Your task to perform on an android device: Clear the cart on walmart. Image 0: 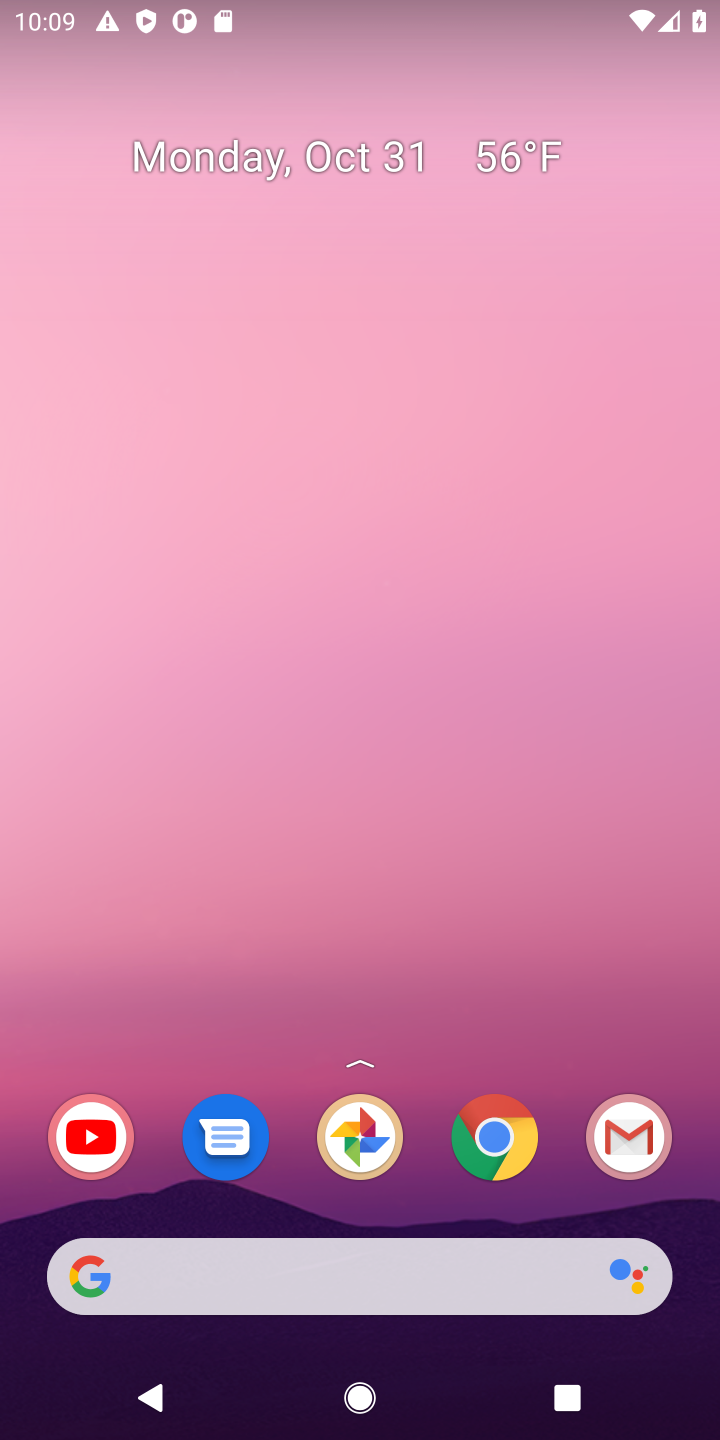
Step 0: click (493, 1143)
Your task to perform on an android device: Clear the cart on walmart. Image 1: 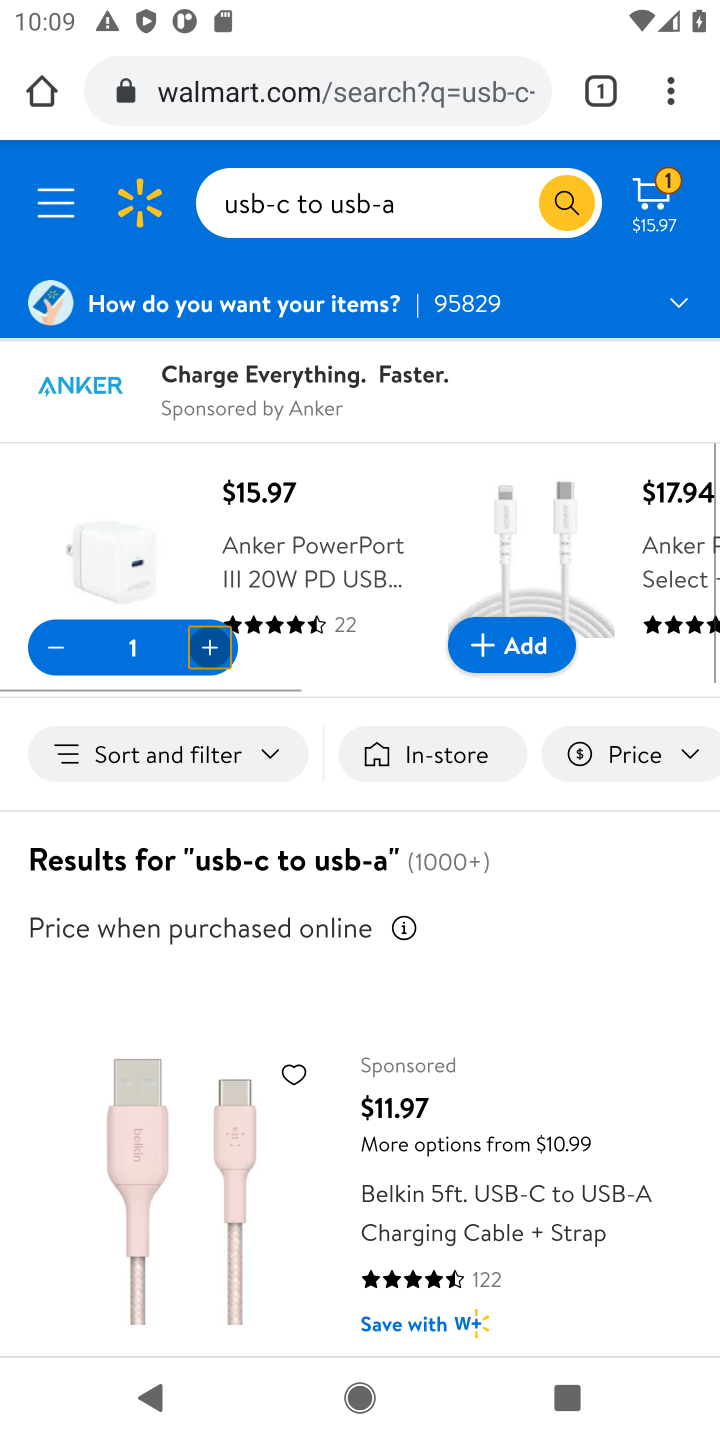
Step 1: click (400, 101)
Your task to perform on an android device: Clear the cart on walmart. Image 2: 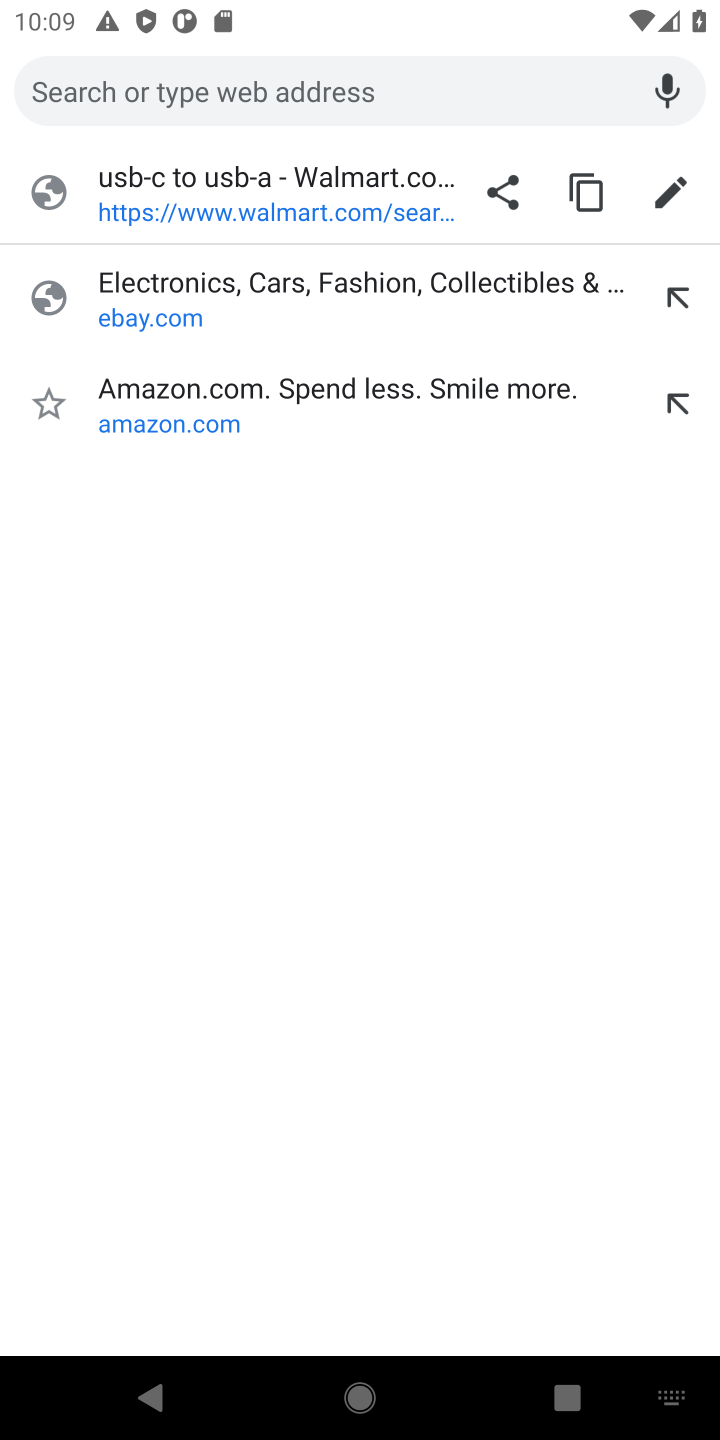
Step 2: type "walmart"
Your task to perform on an android device: Clear the cart on walmart. Image 3: 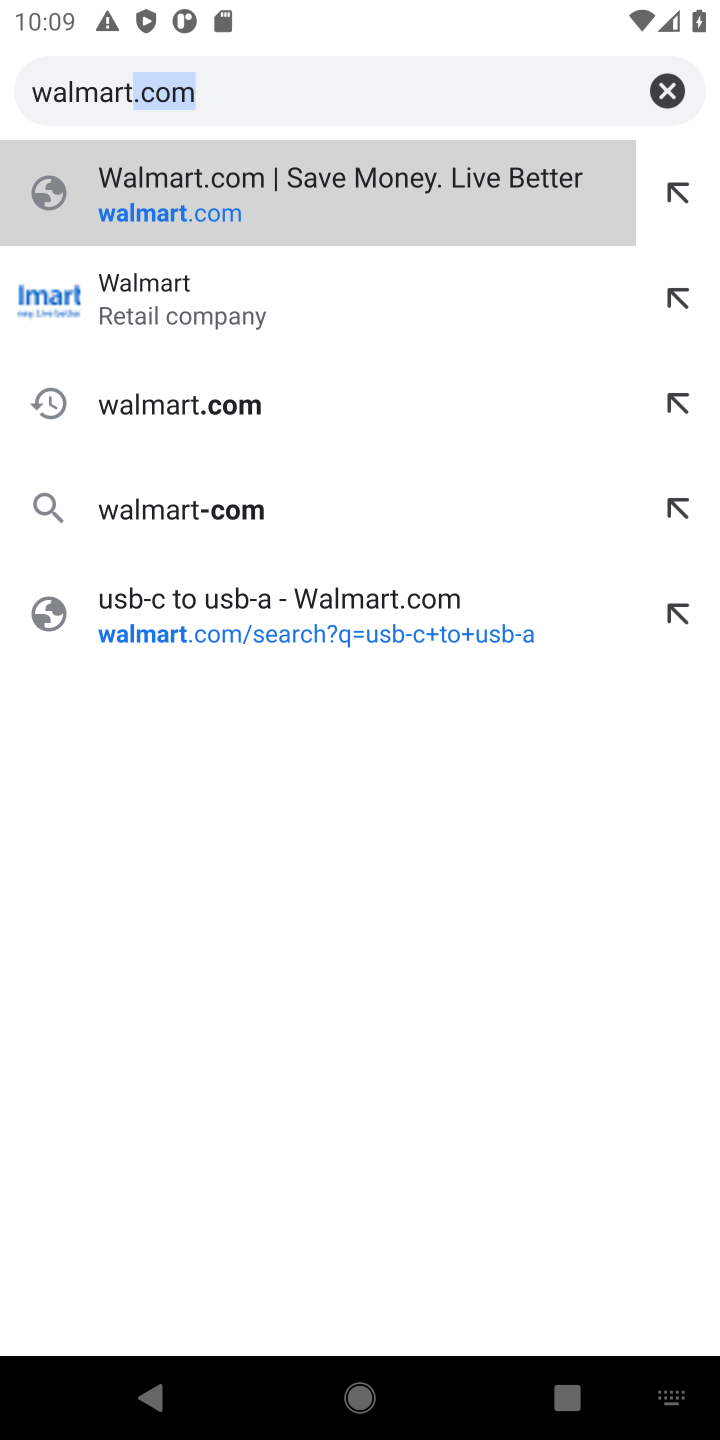
Step 3: click (162, 293)
Your task to perform on an android device: Clear the cart on walmart. Image 4: 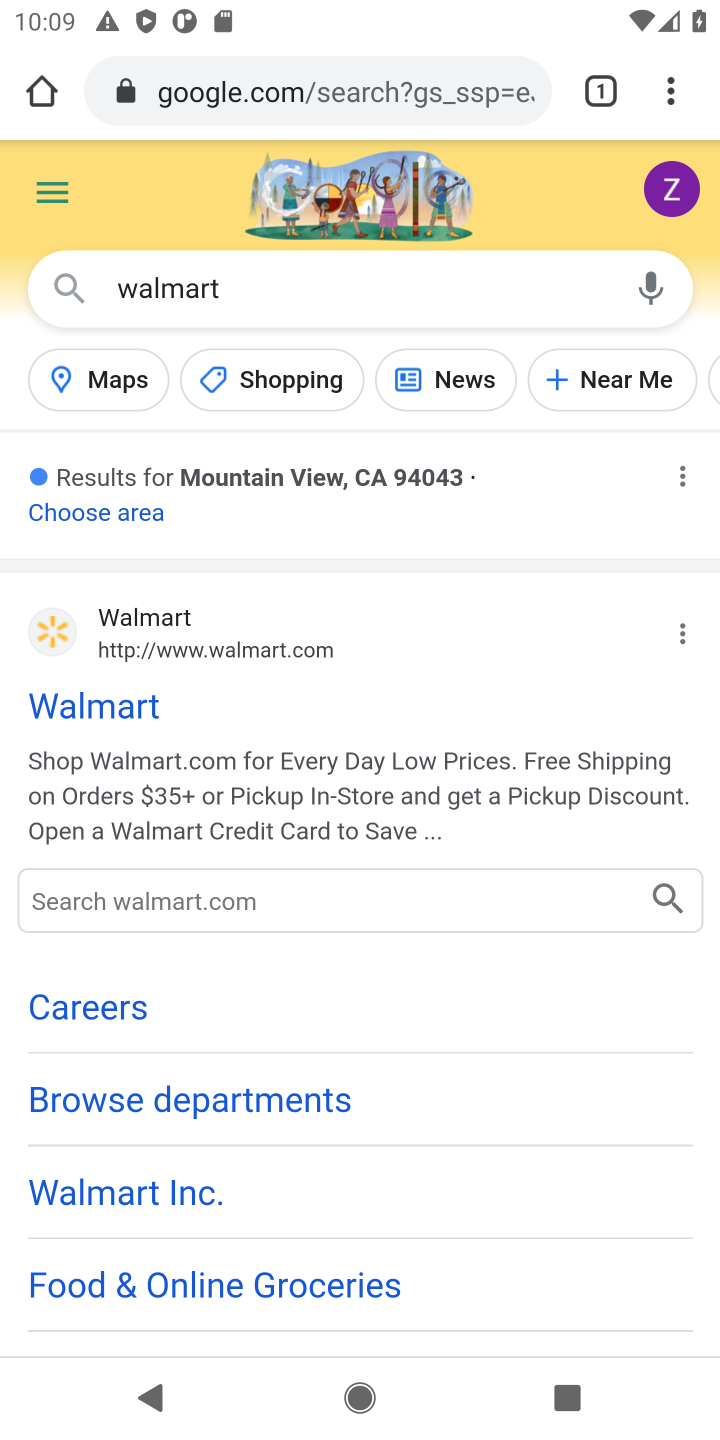
Step 4: click (99, 708)
Your task to perform on an android device: Clear the cart on walmart. Image 5: 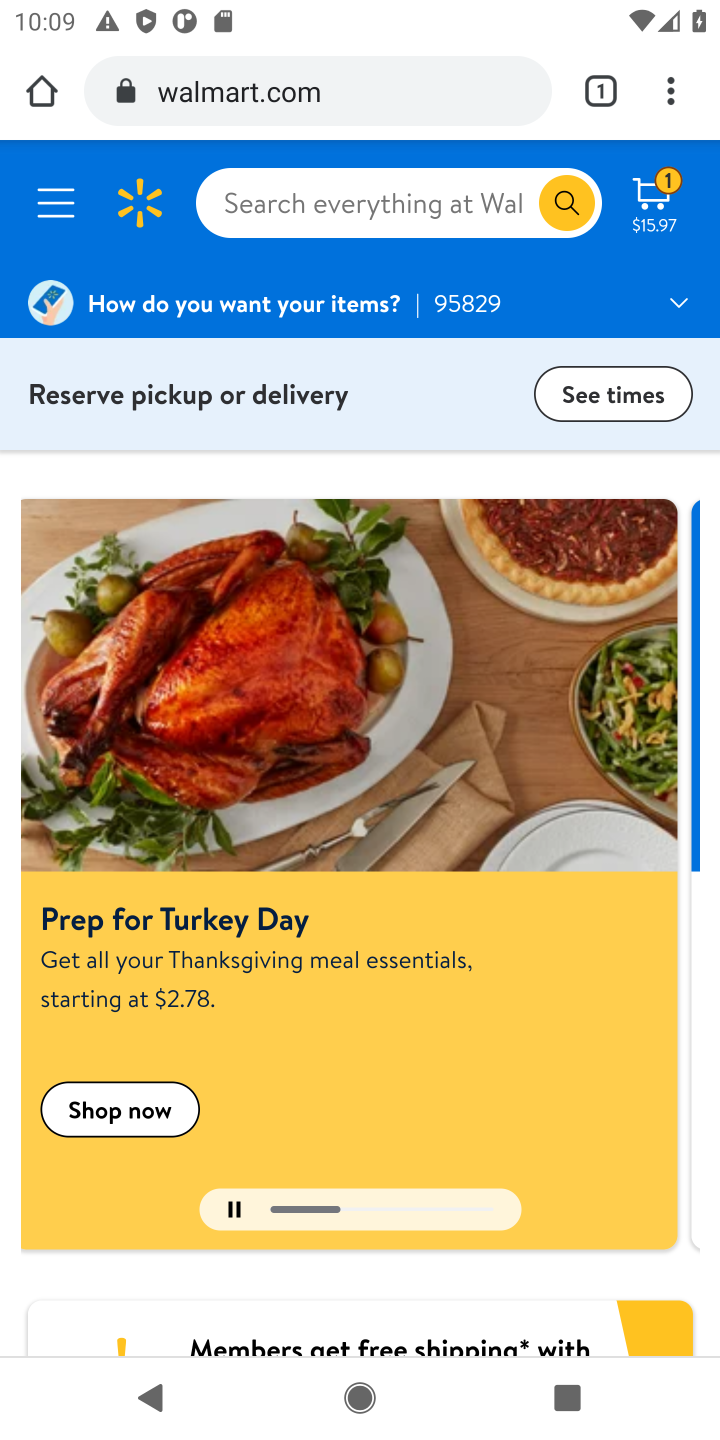
Step 5: click (672, 196)
Your task to perform on an android device: Clear the cart on walmart. Image 6: 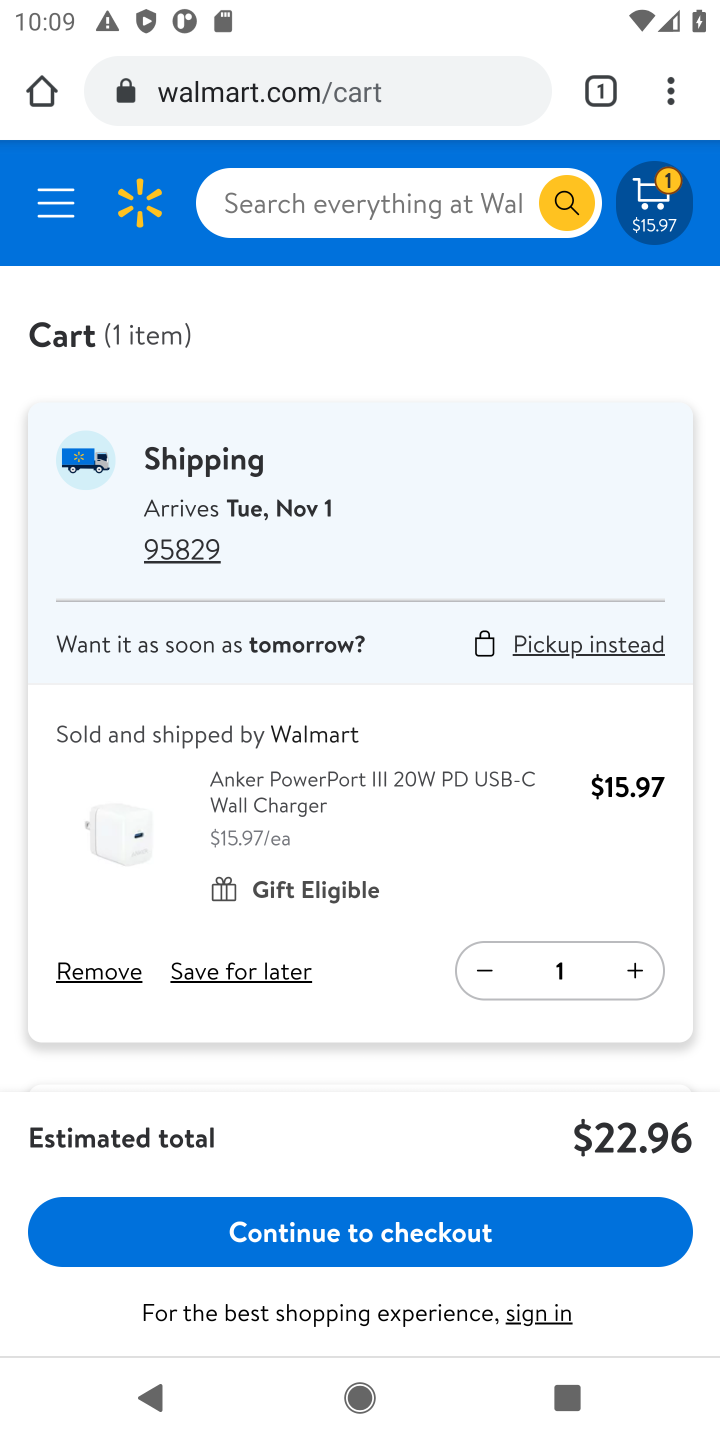
Step 6: click (90, 982)
Your task to perform on an android device: Clear the cart on walmart. Image 7: 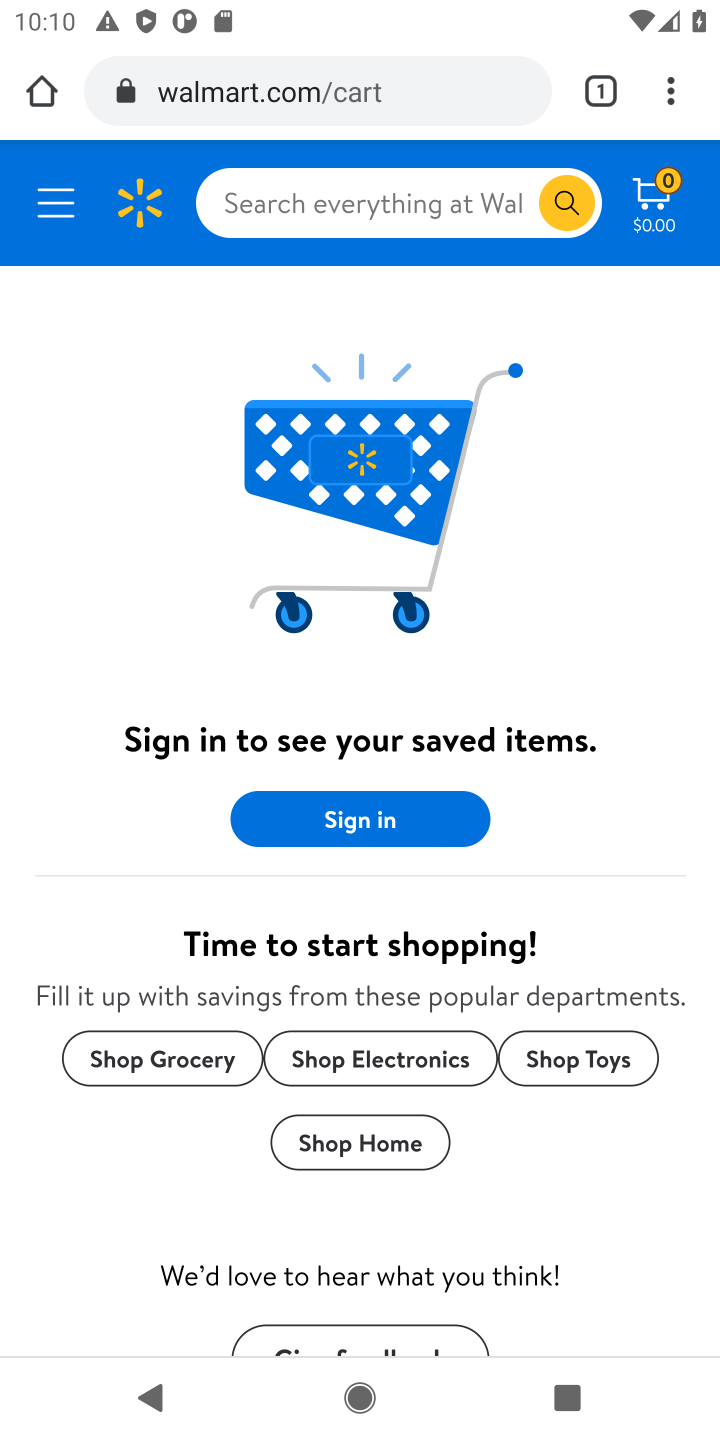
Step 7: task complete